Your task to perform on an android device: make emails show in primary in the gmail app Image 0: 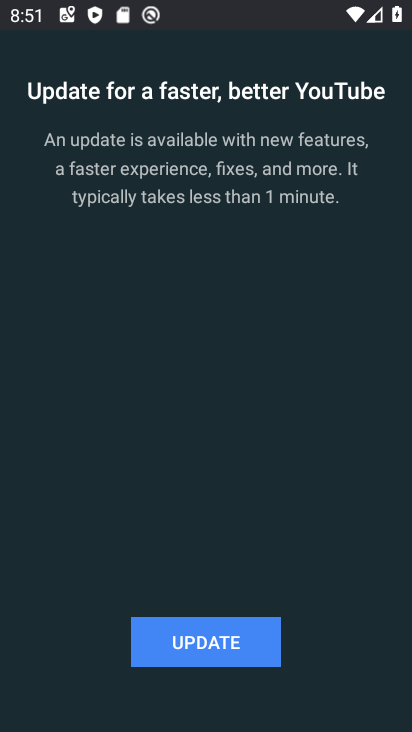
Step 0: press home button
Your task to perform on an android device: make emails show in primary in the gmail app Image 1: 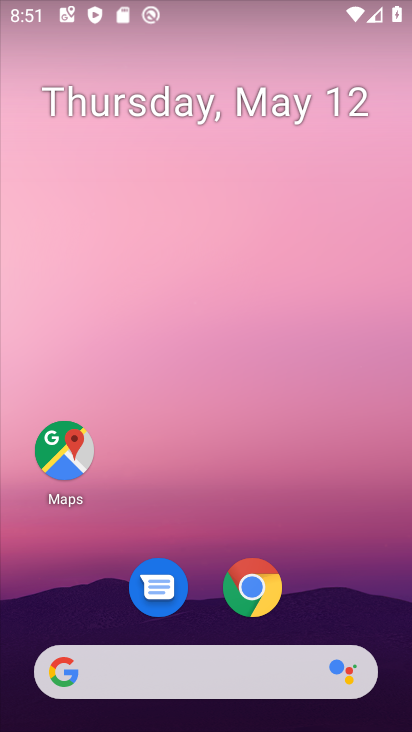
Step 1: drag from (333, 592) to (281, 68)
Your task to perform on an android device: make emails show in primary in the gmail app Image 2: 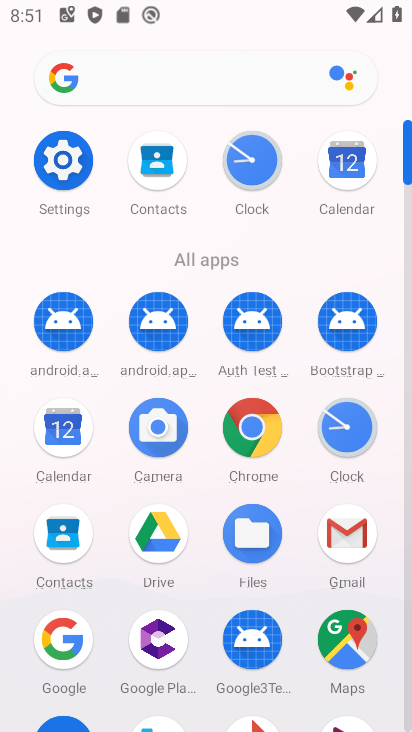
Step 2: click (357, 522)
Your task to perform on an android device: make emails show in primary in the gmail app Image 3: 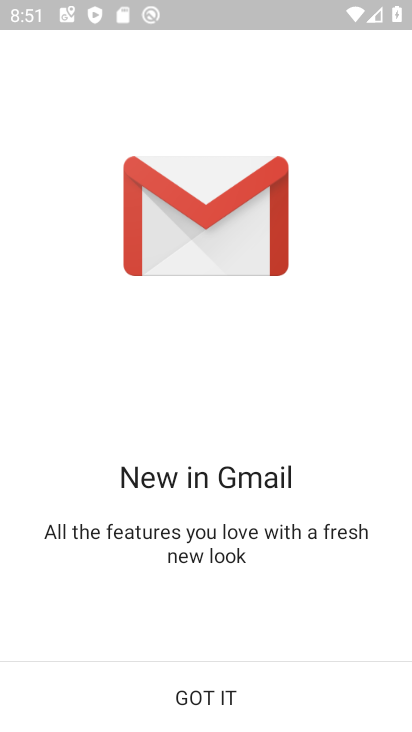
Step 3: click (144, 679)
Your task to perform on an android device: make emails show in primary in the gmail app Image 4: 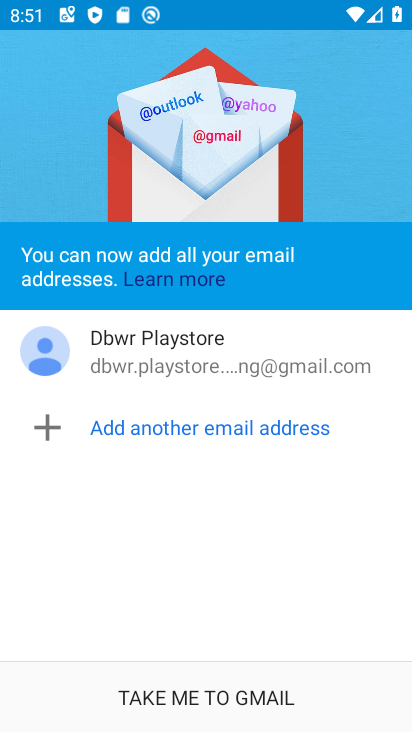
Step 4: click (244, 707)
Your task to perform on an android device: make emails show in primary in the gmail app Image 5: 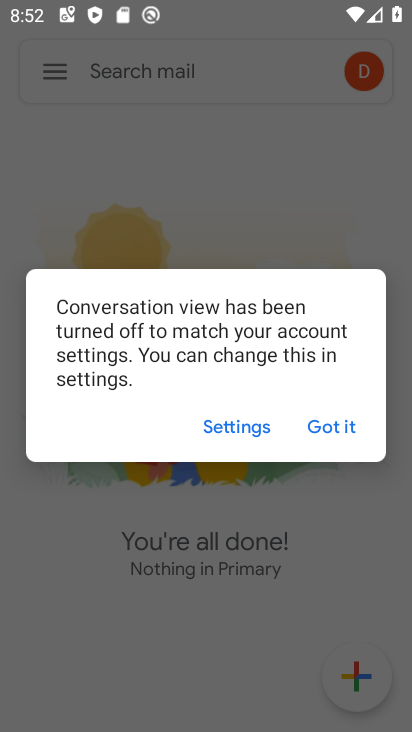
Step 5: click (313, 431)
Your task to perform on an android device: make emails show in primary in the gmail app Image 6: 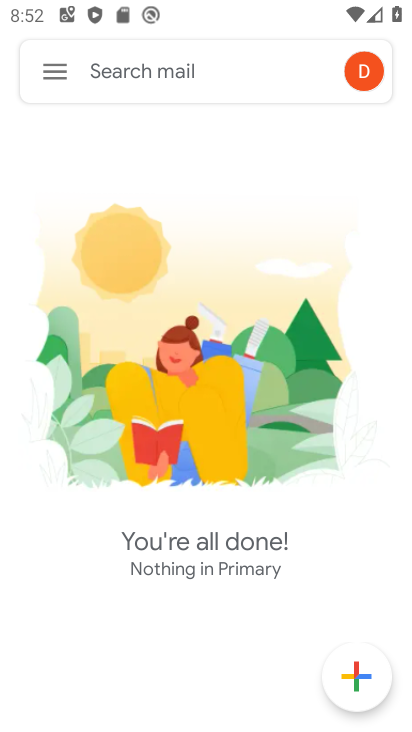
Step 6: click (44, 67)
Your task to perform on an android device: make emails show in primary in the gmail app Image 7: 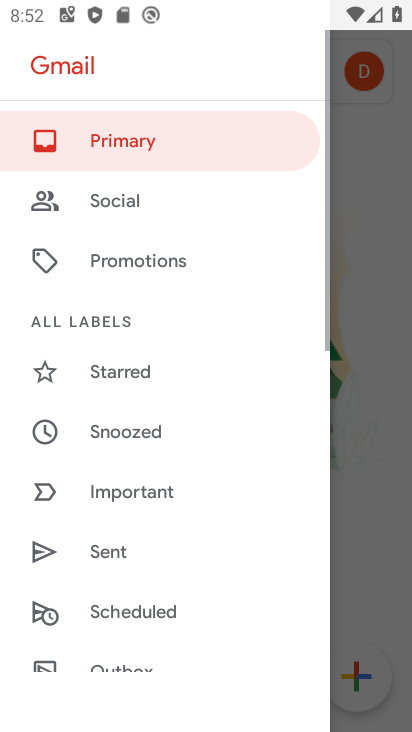
Step 7: drag from (144, 600) to (214, 137)
Your task to perform on an android device: make emails show in primary in the gmail app Image 8: 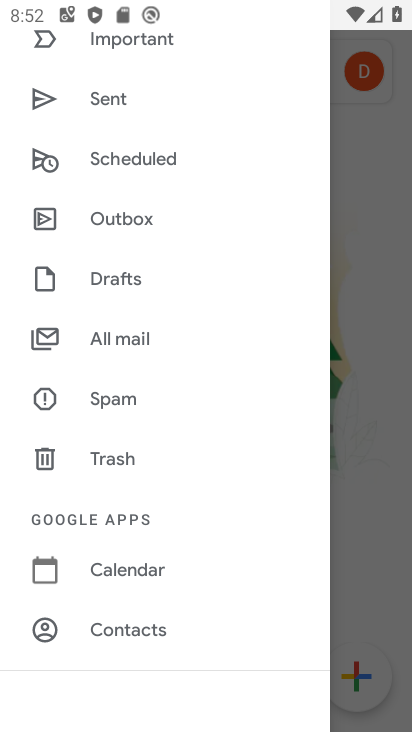
Step 8: drag from (159, 561) to (266, 254)
Your task to perform on an android device: make emails show in primary in the gmail app Image 9: 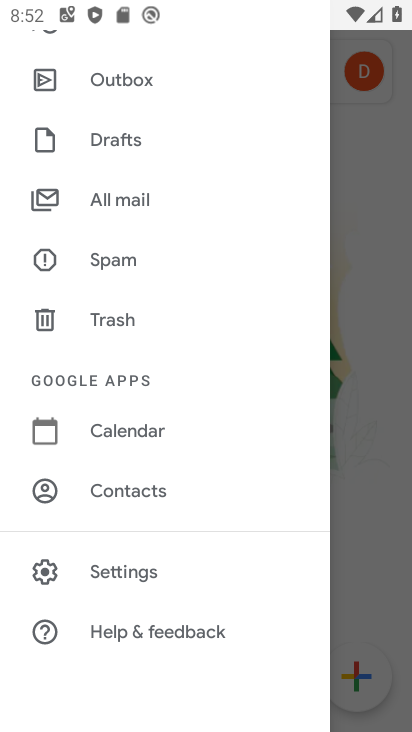
Step 9: click (143, 575)
Your task to perform on an android device: make emails show in primary in the gmail app Image 10: 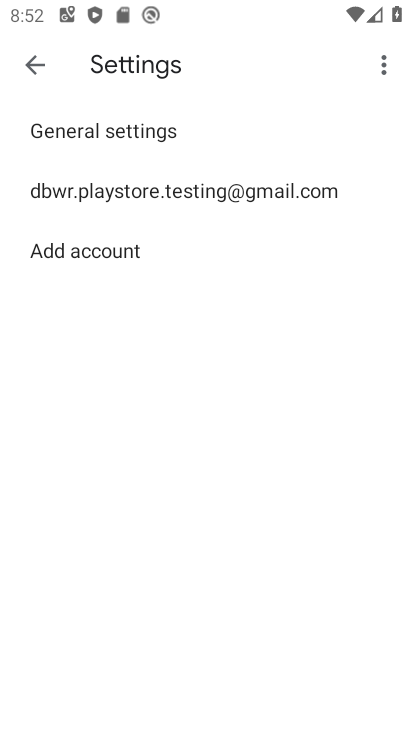
Step 10: click (165, 168)
Your task to perform on an android device: make emails show in primary in the gmail app Image 11: 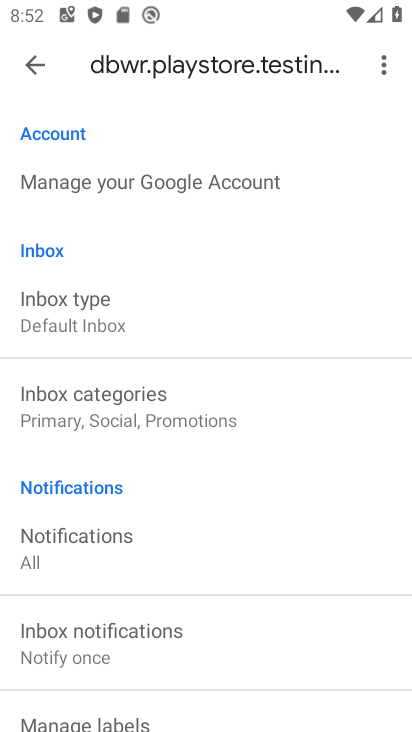
Step 11: click (101, 315)
Your task to perform on an android device: make emails show in primary in the gmail app Image 12: 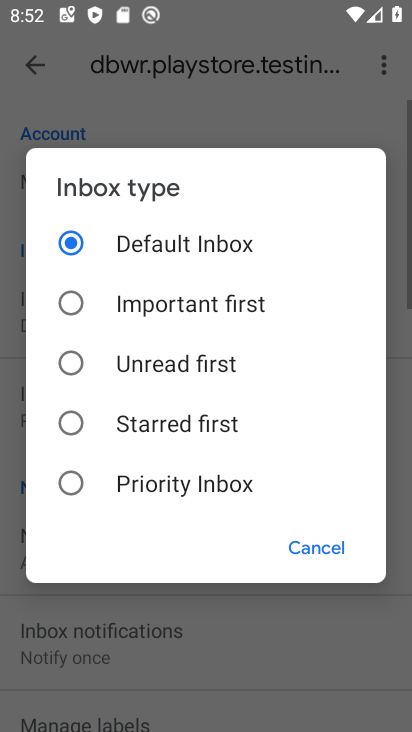
Step 12: click (209, 125)
Your task to perform on an android device: make emails show in primary in the gmail app Image 13: 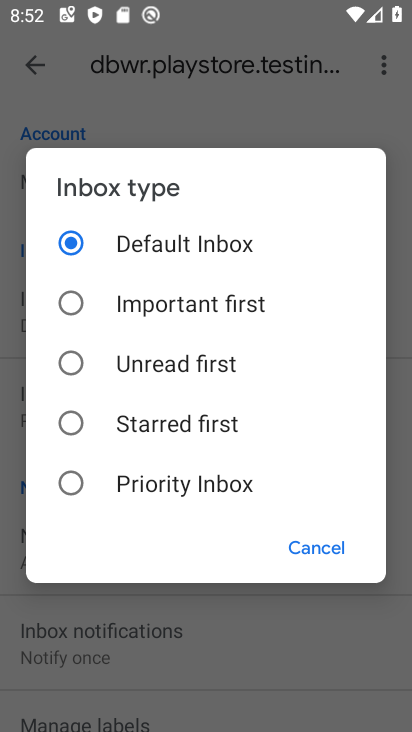
Step 13: click (312, 543)
Your task to perform on an android device: make emails show in primary in the gmail app Image 14: 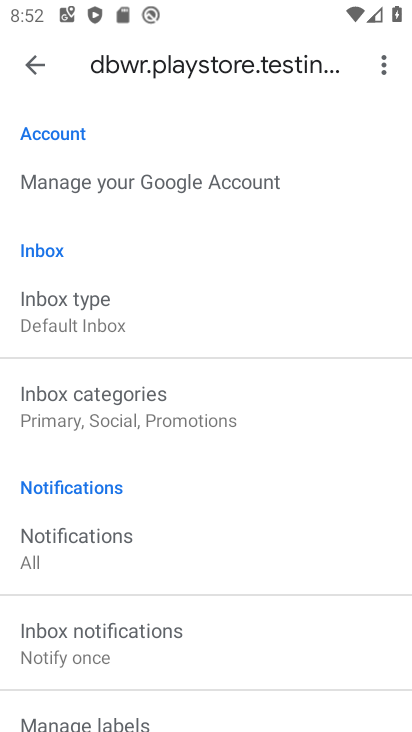
Step 14: click (103, 409)
Your task to perform on an android device: make emails show in primary in the gmail app Image 15: 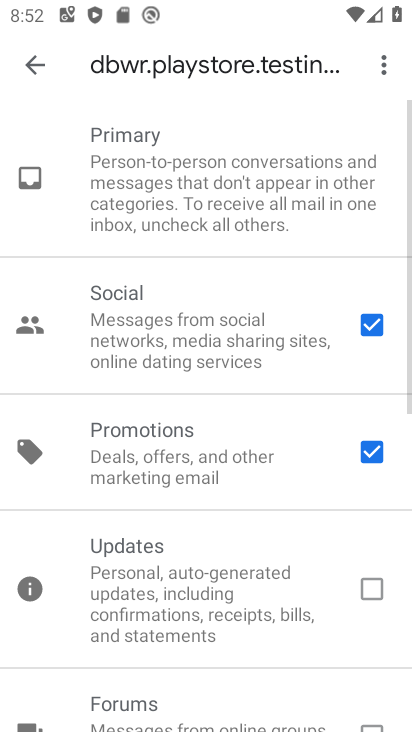
Step 15: task complete